Your task to perform on an android device: Search for flights from NYC to Paris Image 0: 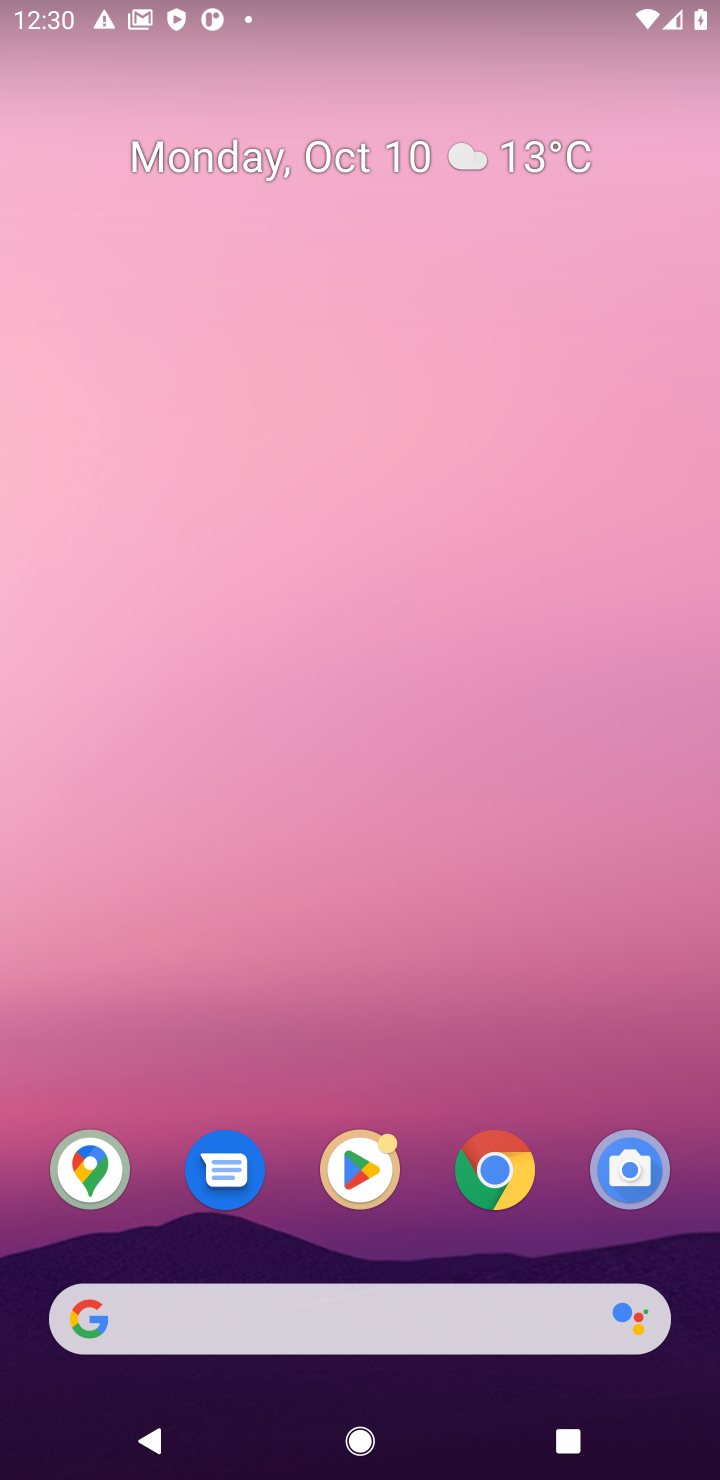
Step 0: click (494, 1169)
Your task to perform on an android device: Search for flights from NYC to Paris Image 1: 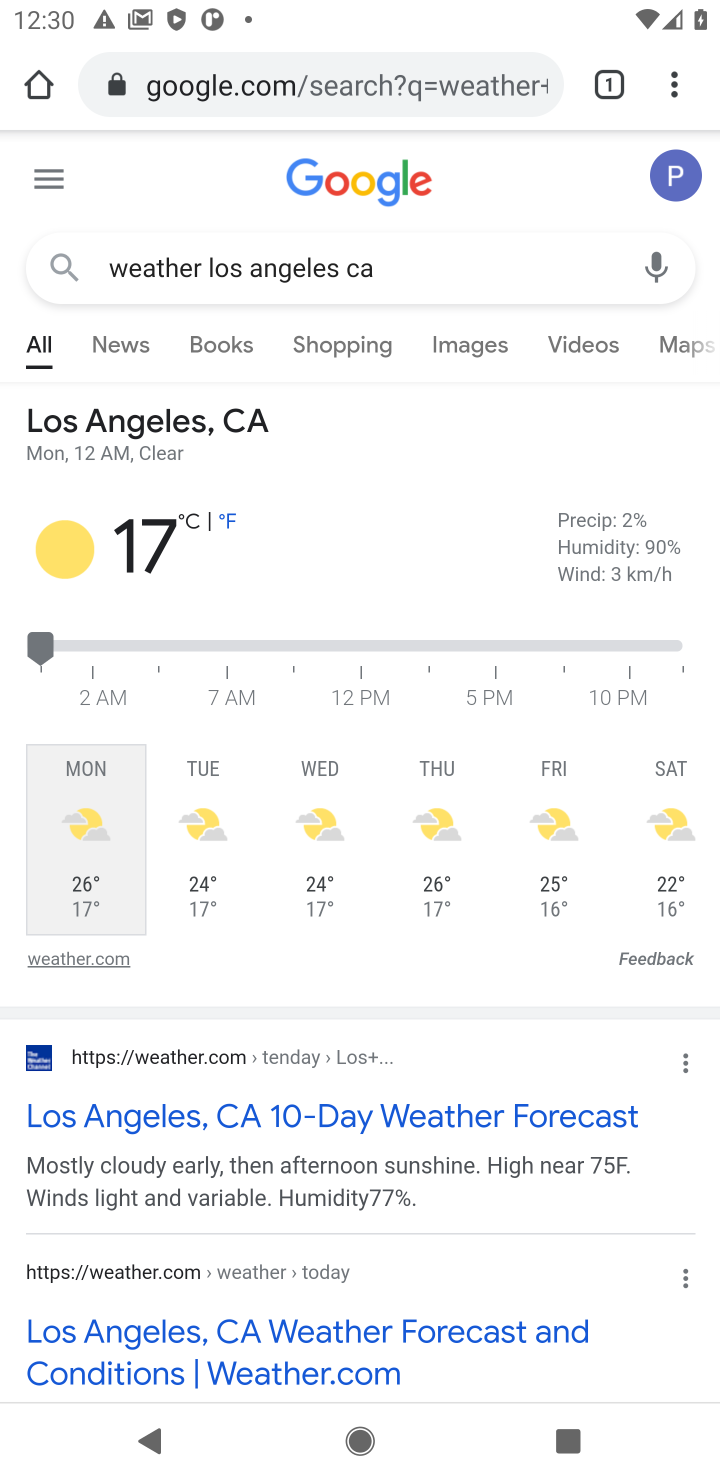
Step 1: click (414, 82)
Your task to perform on an android device: Search for flights from NYC to Paris Image 2: 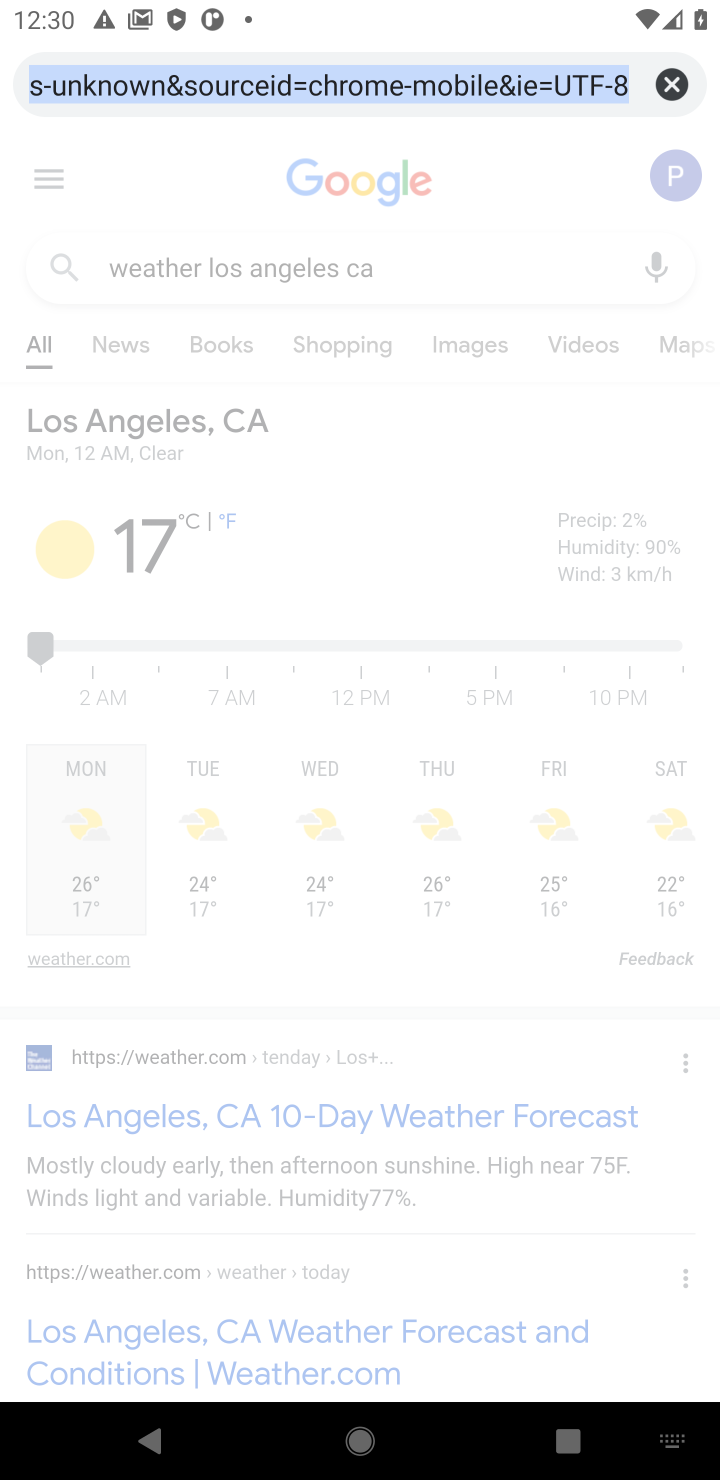
Step 2: click (669, 90)
Your task to perform on an android device: Search for flights from NYC to Paris Image 3: 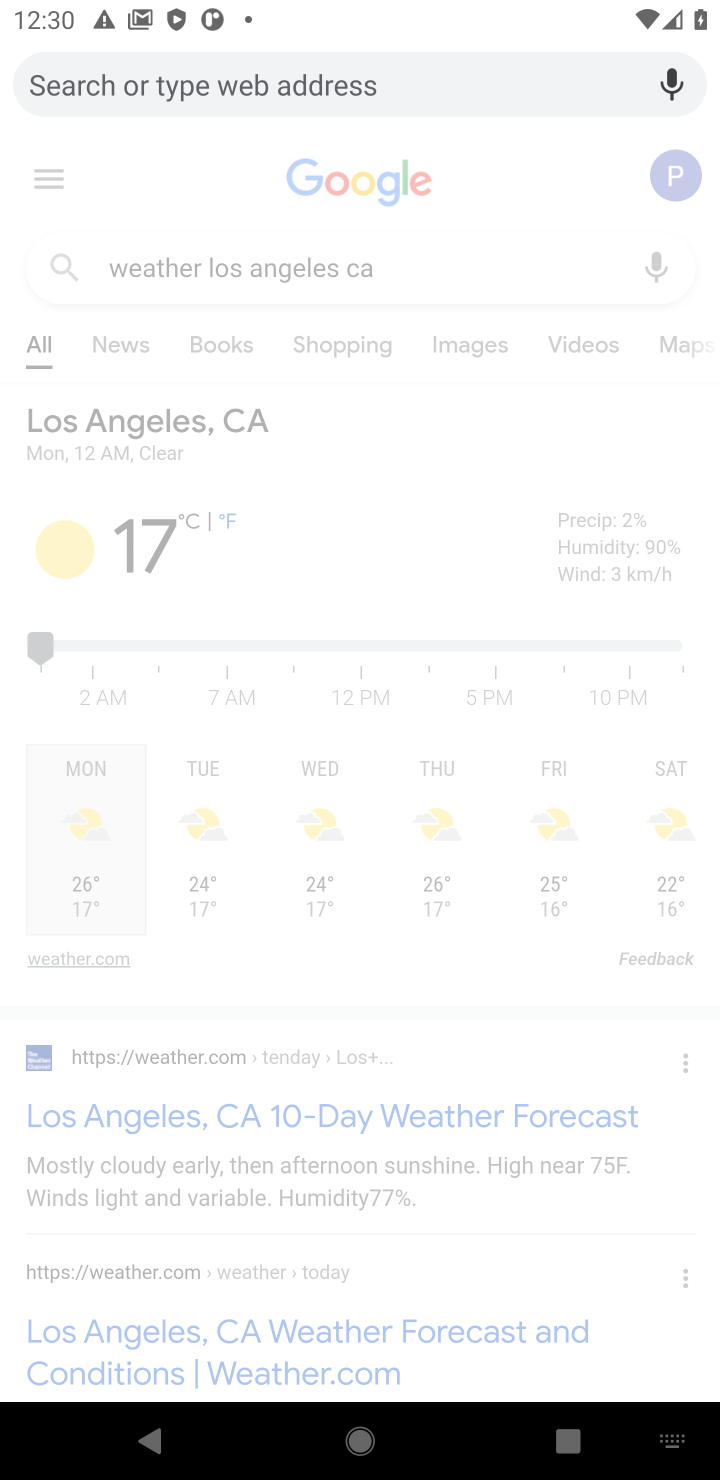
Step 3: type "flights from NYC to Paris"
Your task to perform on an android device: Search for flights from NYC to Paris Image 4: 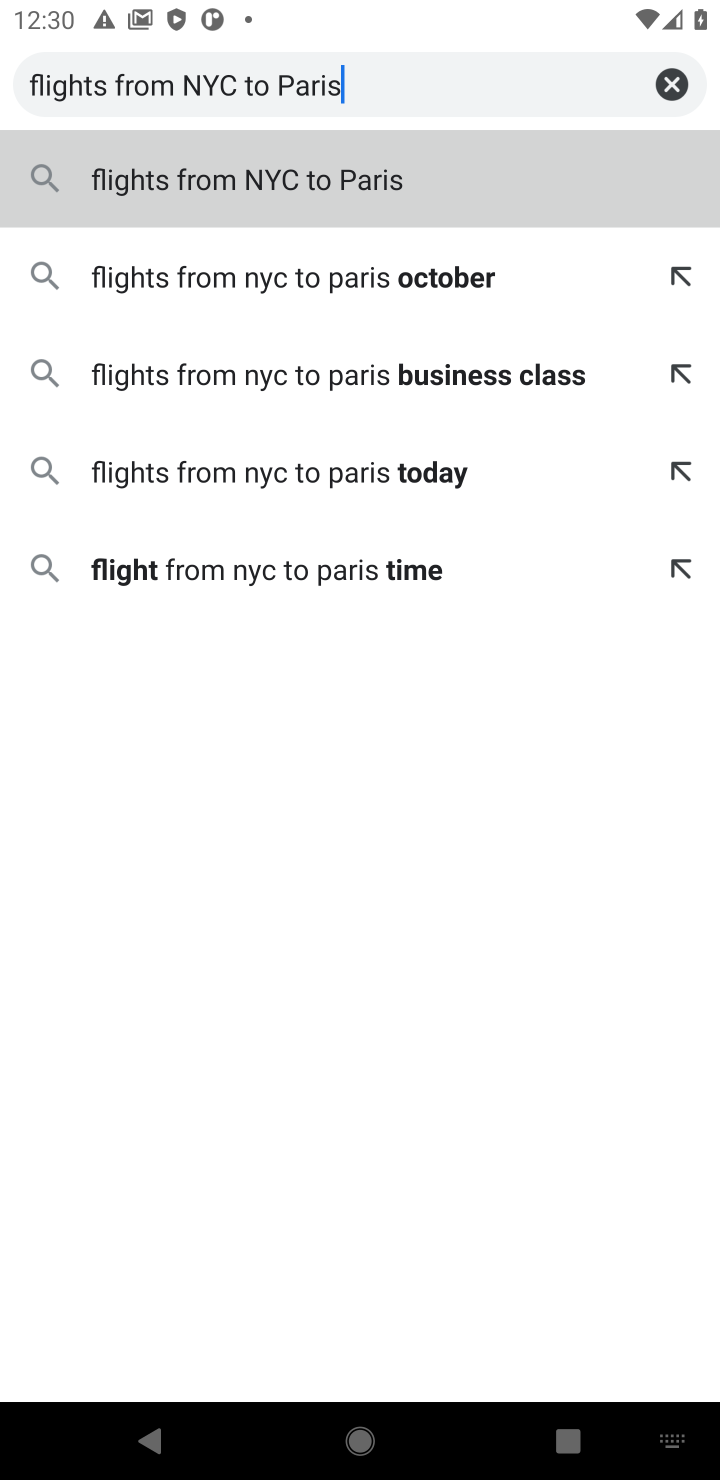
Step 4: click (322, 181)
Your task to perform on an android device: Search for flights from NYC to Paris Image 5: 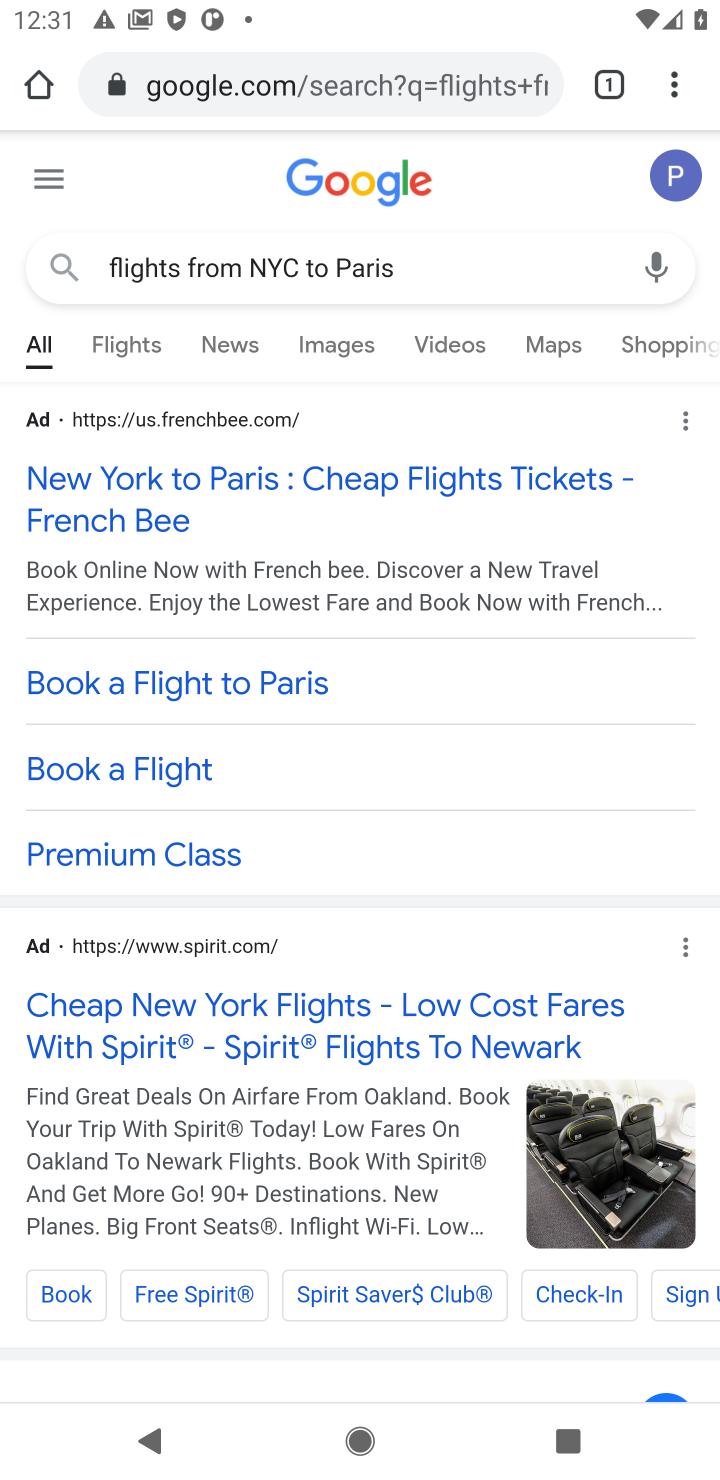
Step 5: task complete